Your task to perform on an android device: clear history in the chrome app Image 0: 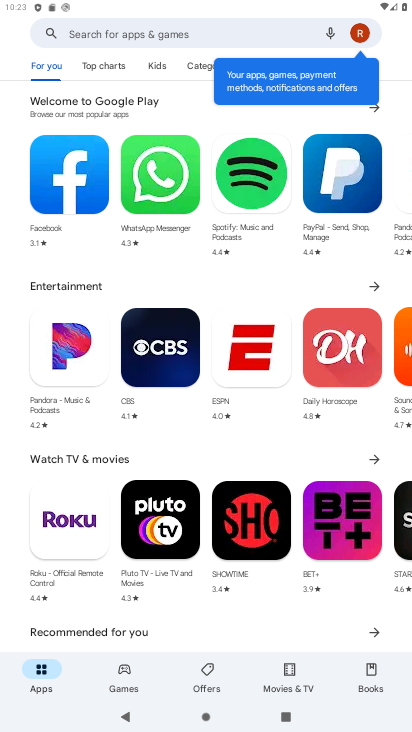
Step 0: press home button
Your task to perform on an android device: clear history in the chrome app Image 1: 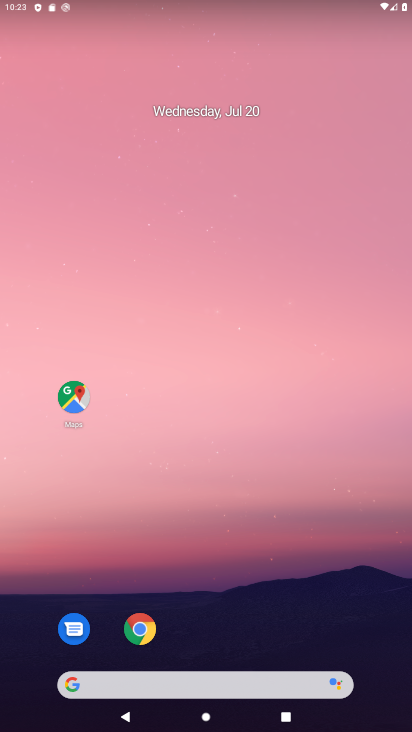
Step 1: drag from (253, 656) to (140, 109)
Your task to perform on an android device: clear history in the chrome app Image 2: 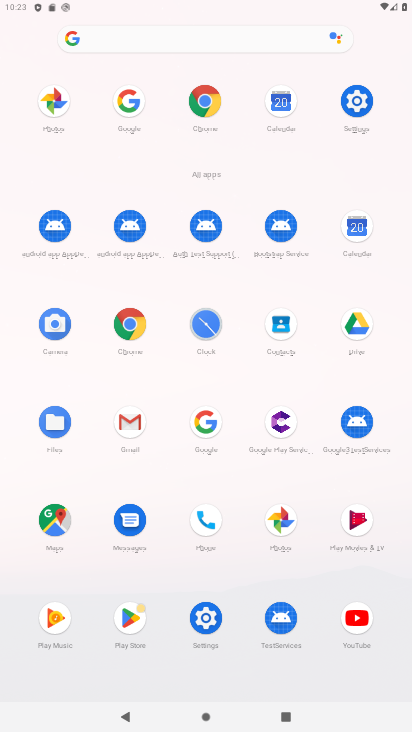
Step 2: click (213, 106)
Your task to perform on an android device: clear history in the chrome app Image 3: 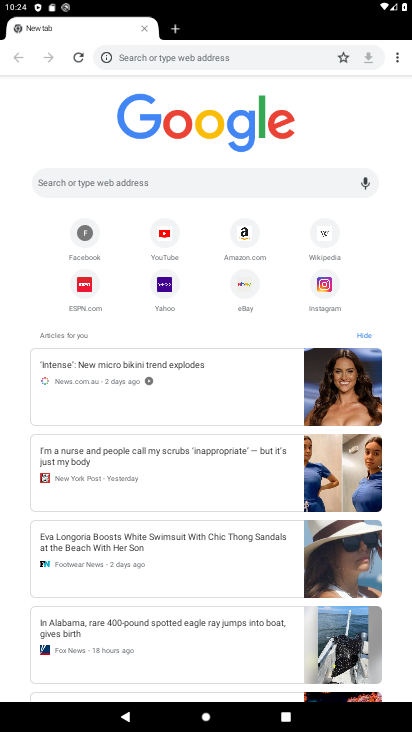
Step 3: task complete